Your task to perform on an android device: What's on my calendar tomorrow? Image 0: 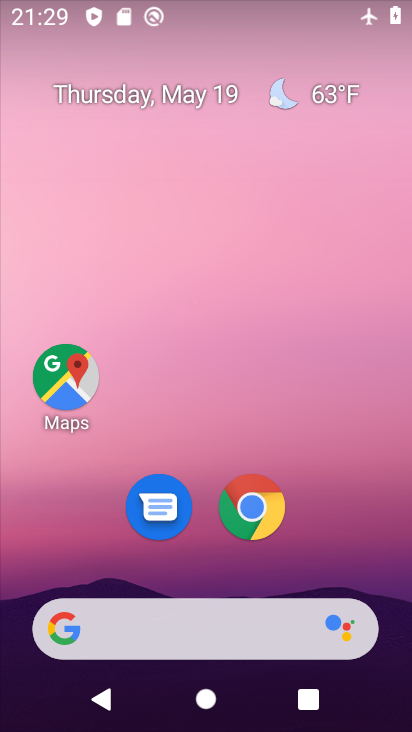
Step 0: drag from (388, 544) to (370, 133)
Your task to perform on an android device: What's on my calendar tomorrow? Image 1: 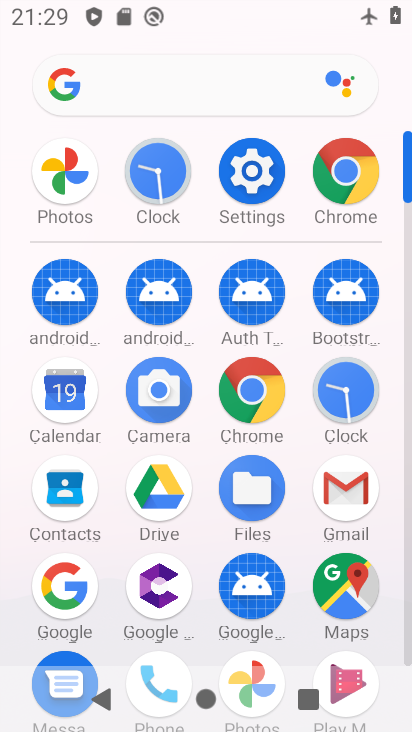
Step 1: click (68, 415)
Your task to perform on an android device: What's on my calendar tomorrow? Image 2: 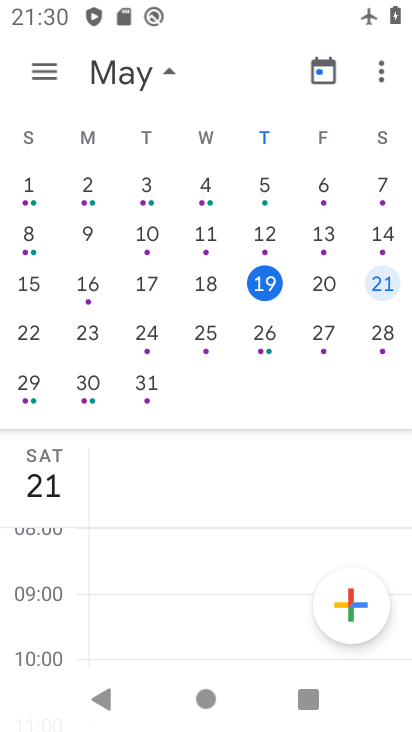
Step 2: click (385, 281)
Your task to perform on an android device: What's on my calendar tomorrow? Image 3: 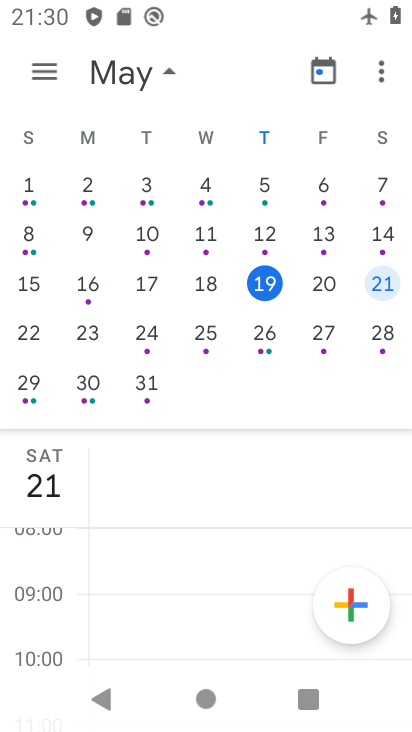
Step 3: click (128, 72)
Your task to perform on an android device: What's on my calendar tomorrow? Image 4: 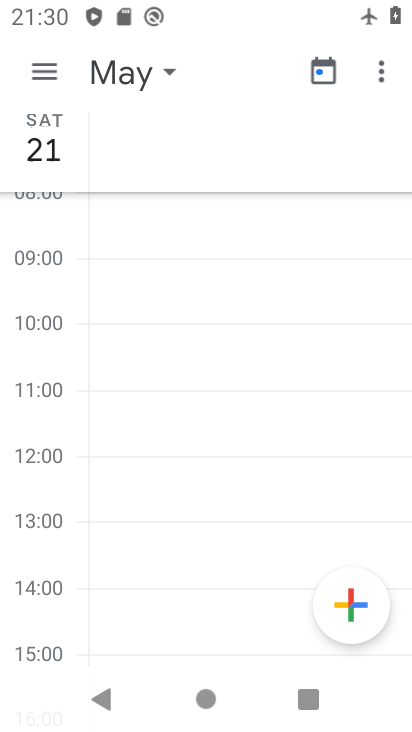
Step 4: task complete